Your task to perform on an android device: Search for seafood restaurants on Google Maps Image 0: 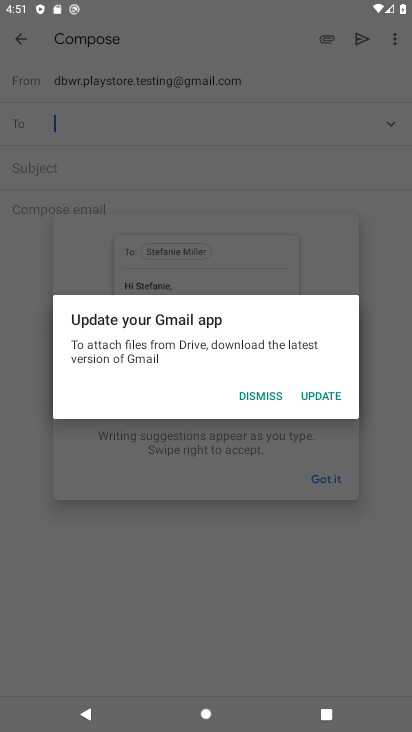
Step 0: press home button
Your task to perform on an android device: Search for seafood restaurants on Google Maps Image 1: 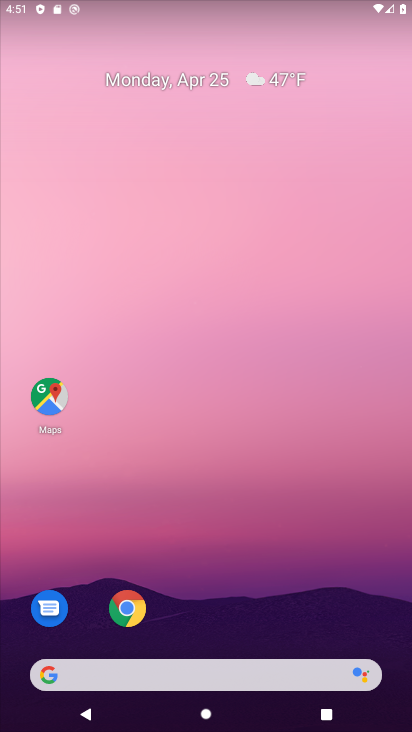
Step 1: click (57, 389)
Your task to perform on an android device: Search for seafood restaurants on Google Maps Image 2: 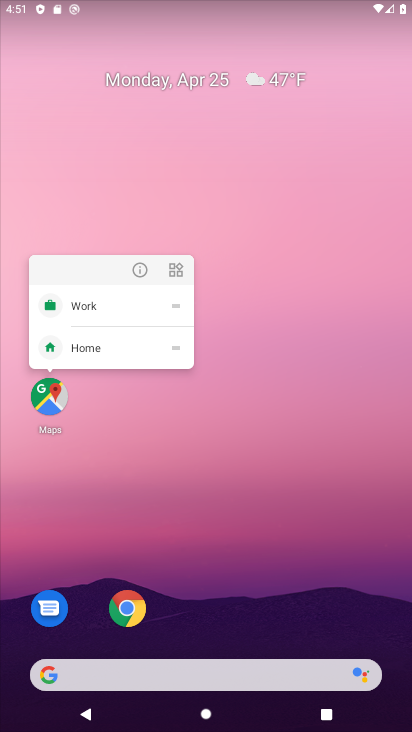
Step 2: click (52, 393)
Your task to perform on an android device: Search for seafood restaurants on Google Maps Image 3: 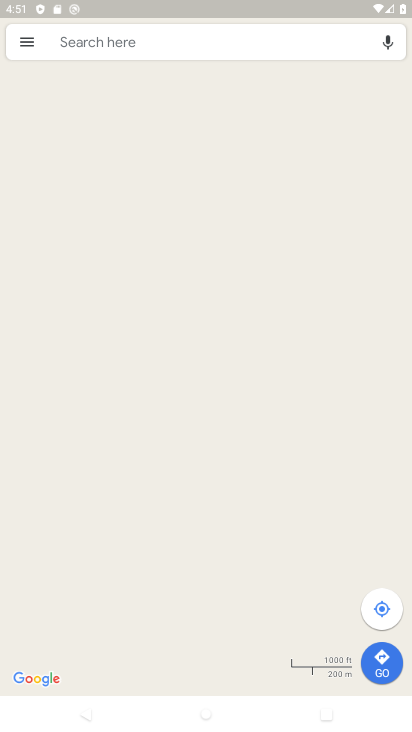
Step 3: click (92, 39)
Your task to perform on an android device: Search for seafood restaurants on Google Maps Image 4: 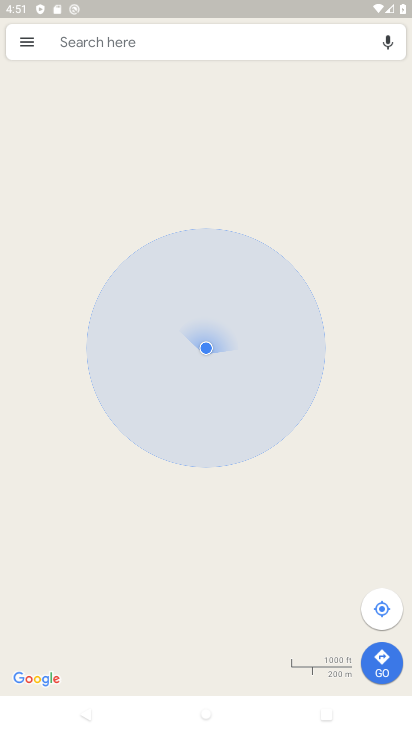
Step 4: click (91, 40)
Your task to perform on an android device: Search for seafood restaurants on Google Maps Image 5: 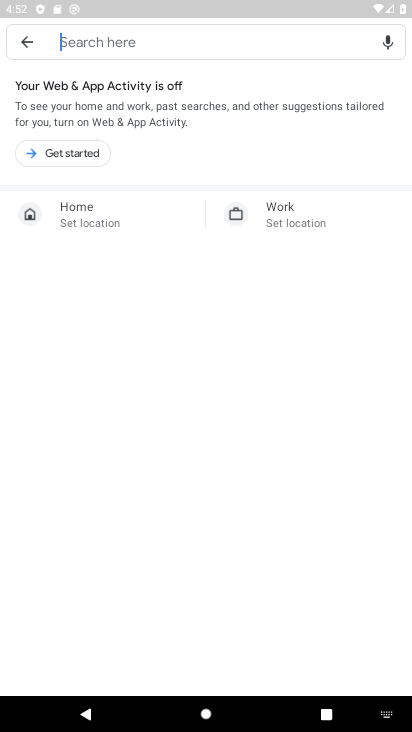
Step 5: click (243, 731)
Your task to perform on an android device: Search for seafood restaurants on Google Maps Image 6: 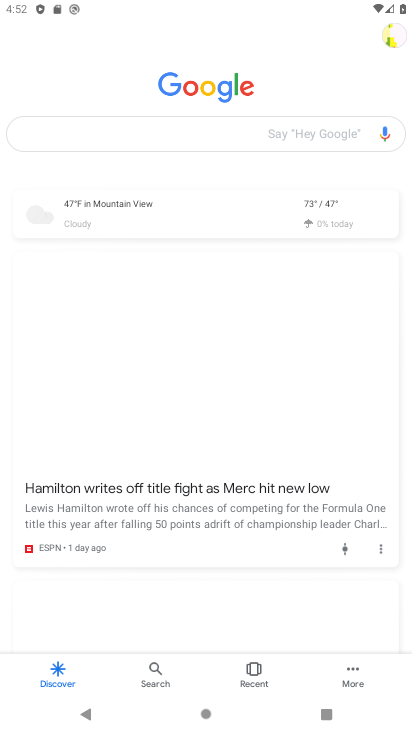
Step 6: press home button
Your task to perform on an android device: Search for seafood restaurants on Google Maps Image 7: 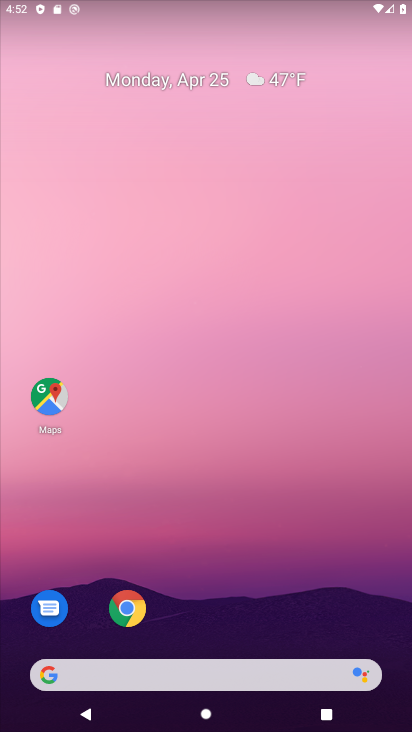
Step 7: click (59, 401)
Your task to perform on an android device: Search for seafood restaurants on Google Maps Image 8: 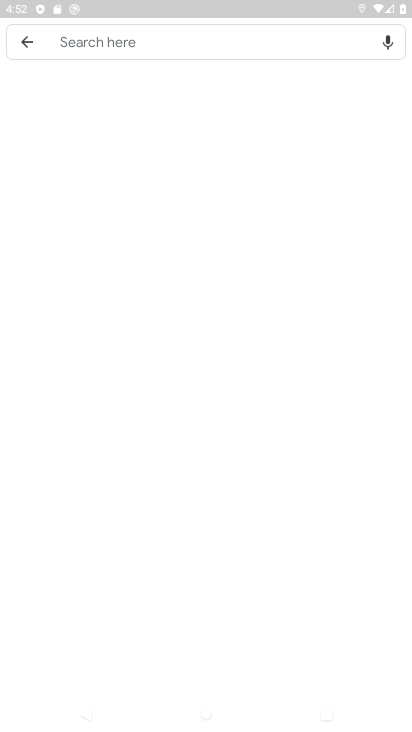
Step 8: click (83, 37)
Your task to perform on an android device: Search for seafood restaurants on Google Maps Image 9: 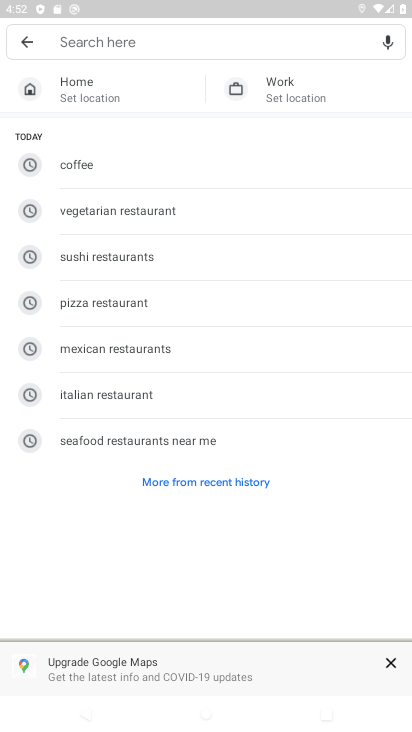
Step 9: click (82, 38)
Your task to perform on an android device: Search for seafood restaurants on Google Maps Image 10: 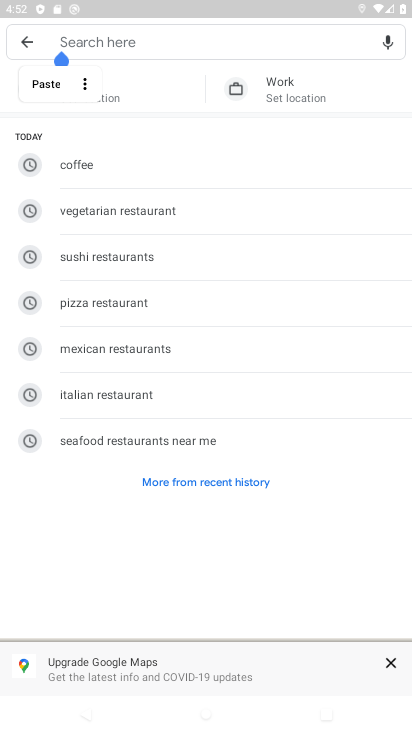
Step 10: click (86, 37)
Your task to perform on an android device: Search for seafood restaurants on Google Maps Image 11: 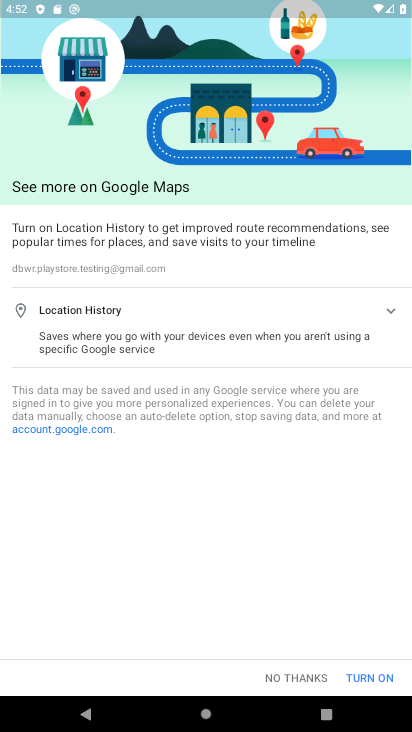
Step 11: click (292, 672)
Your task to perform on an android device: Search for seafood restaurants on Google Maps Image 12: 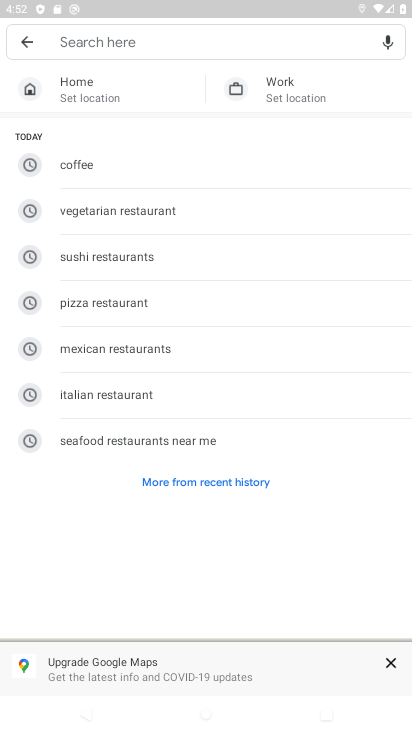
Step 12: click (126, 34)
Your task to perform on an android device: Search for seafood restaurants on Google Maps Image 13: 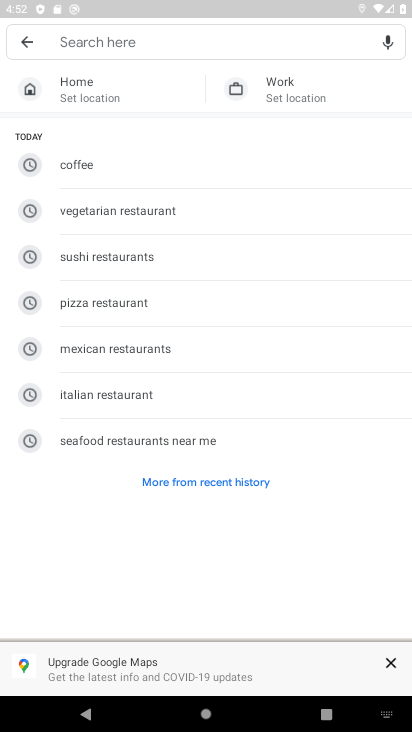
Step 13: type "seafood restaurants"
Your task to perform on an android device: Search for seafood restaurants on Google Maps Image 14: 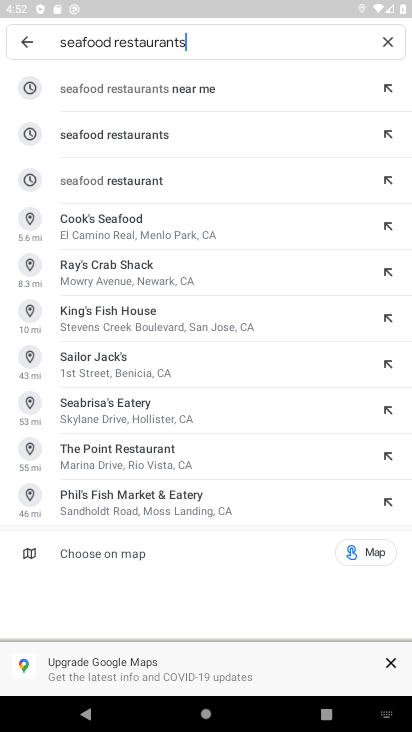
Step 14: click (118, 132)
Your task to perform on an android device: Search for seafood restaurants on Google Maps Image 15: 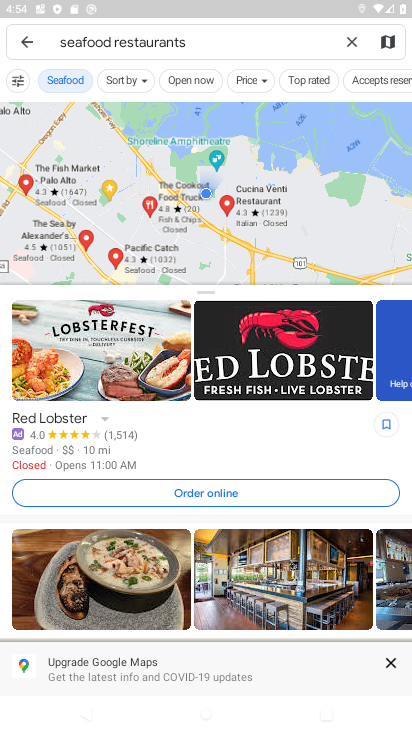
Step 15: task complete